Your task to perform on an android device: open app "Chime – Mobile Banking" (install if not already installed) Image 0: 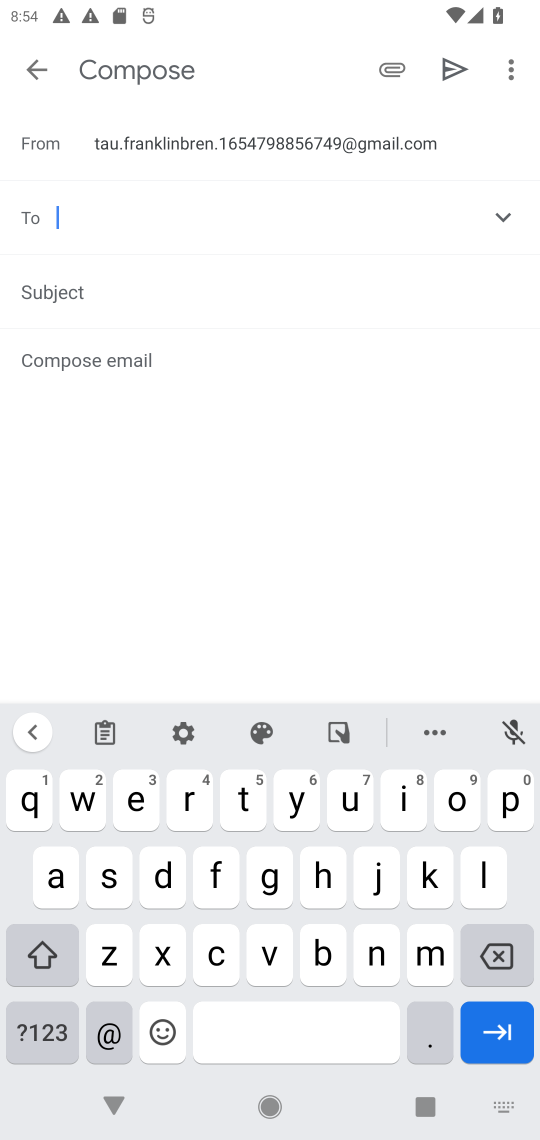
Step 0: press home button
Your task to perform on an android device: open app "Chime – Mobile Banking" (install if not already installed) Image 1: 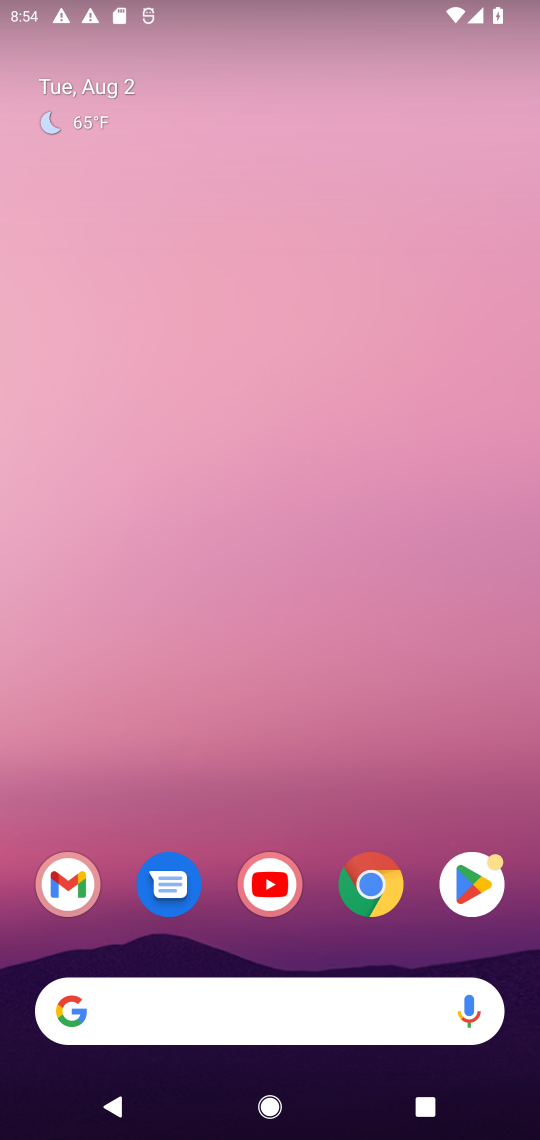
Step 1: click (465, 892)
Your task to perform on an android device: open app "Chime – Mobile Banking" (install if not already installed) Image 2: 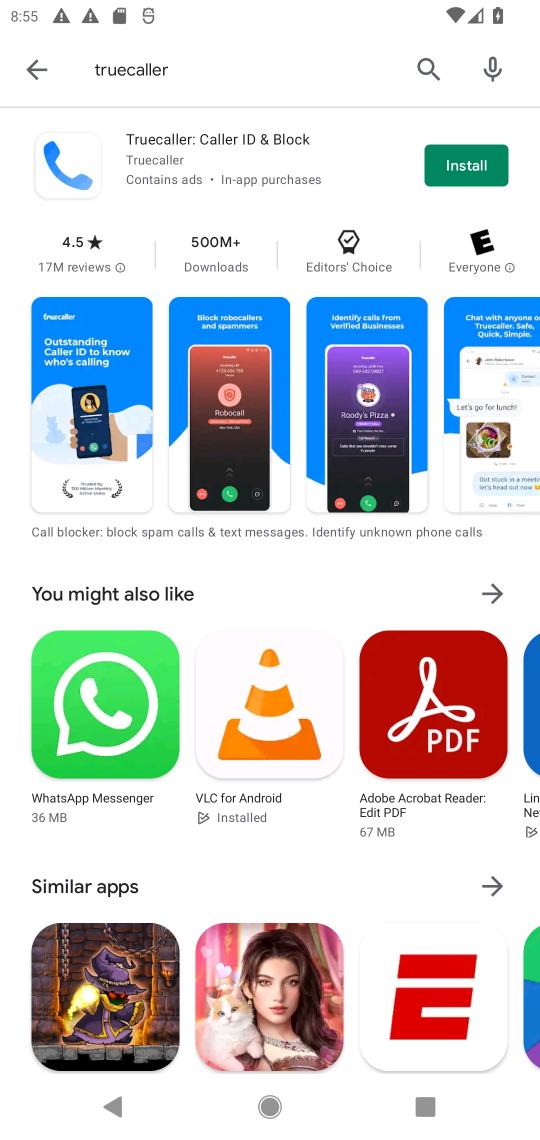
Step 2: click (416, 66)
Your task to perform on an android device: open app "Chime – Mobile Banking" (install if not already installed) Image 3: 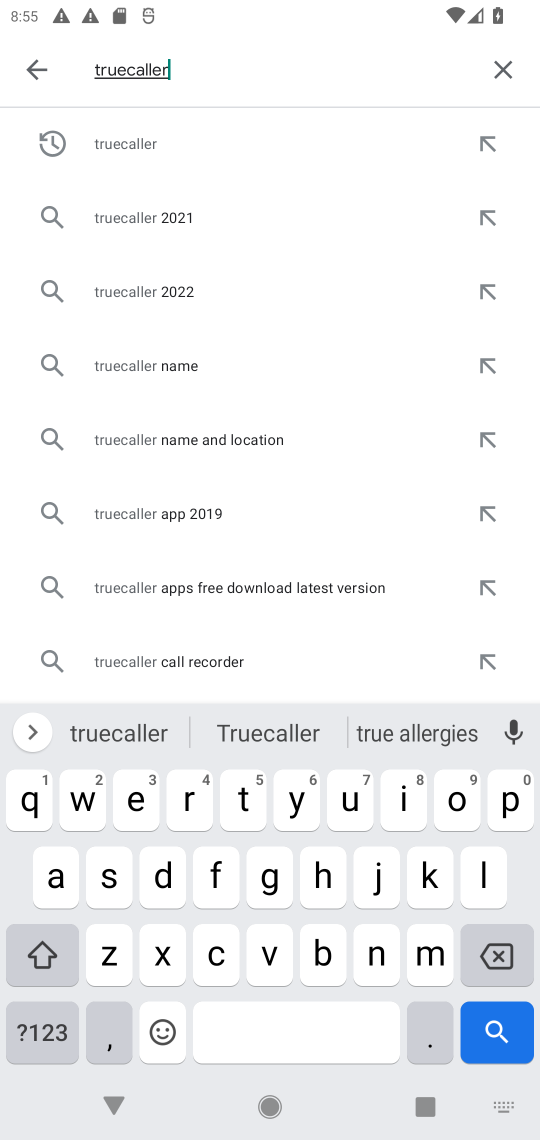
Step 3: click (501, 69)
Your task to perform on an android device: open app "Chime – Mobile Banking" (install if not already installed) Image 4: 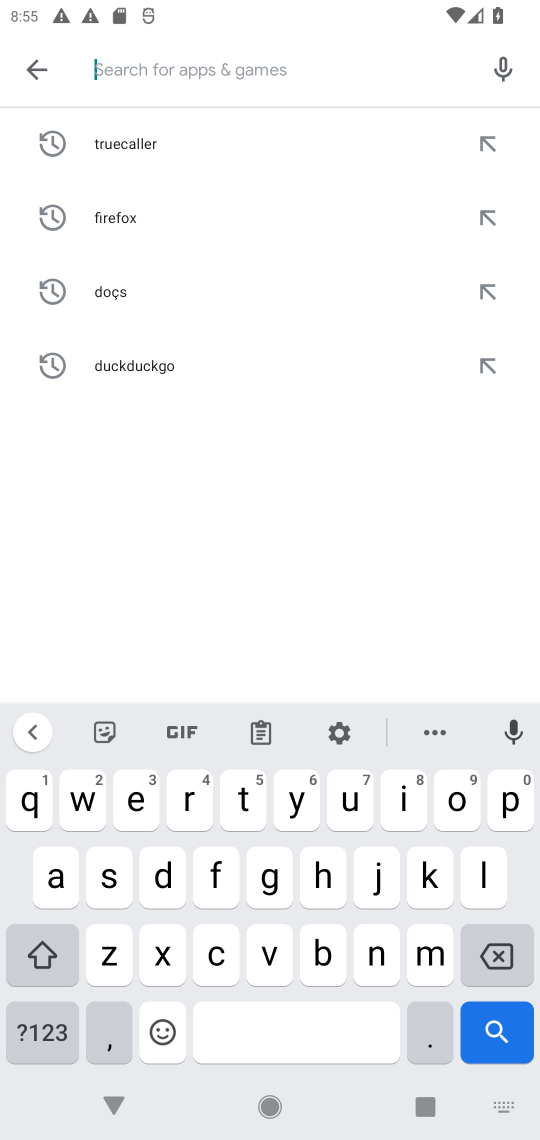
Step 4: click (211, 955)
Your task to perform on an android device: open app "Chime – Mobile Banking" (install if not already installed) Image 5: 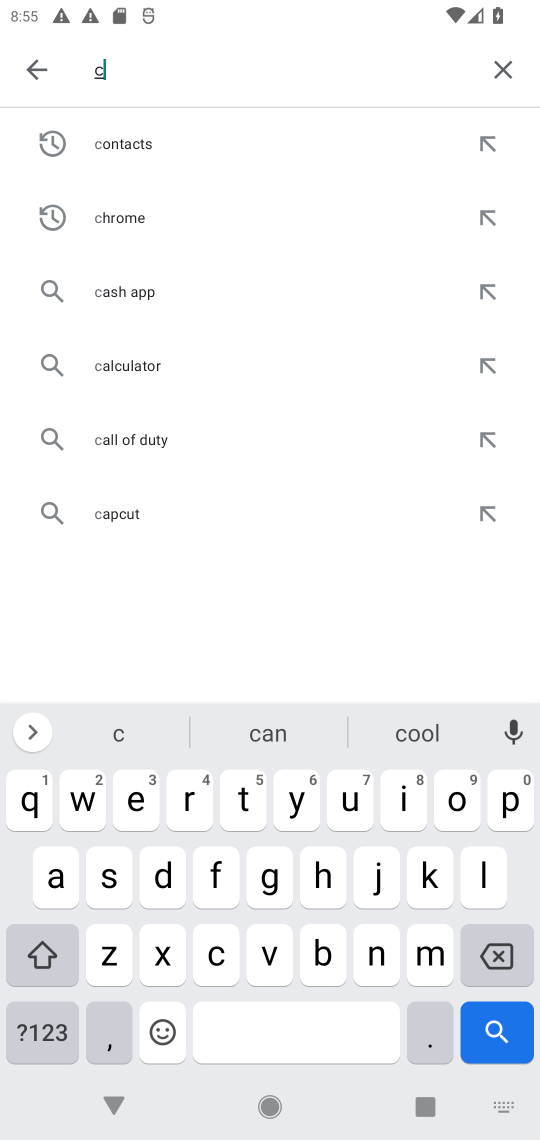
Step 5: click (323, 877)
Your task to perform on an android device: open app "Chime – Mobile Banking" (install if not already installed) Image 6: 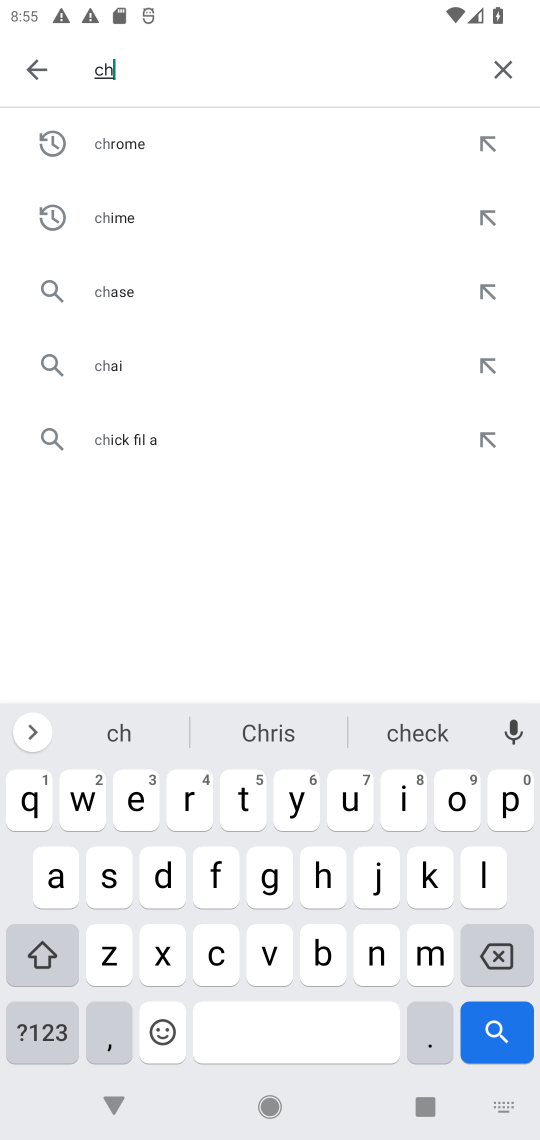
Step 6: click (406, 801)
Your task to perform on an android device: open app "Chime – Mobile Banking" (install if not already installed) Image 7: 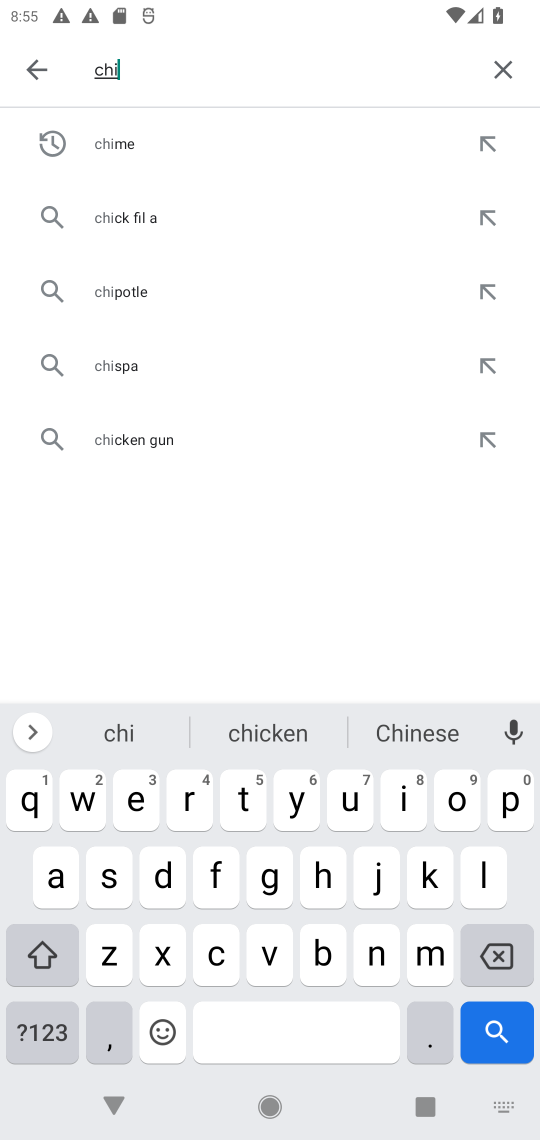
Step 7: click (152, 136)
Your task to perform on an android device: open app "Chime – Mobile Banking" (install if not already installed) Image 8: 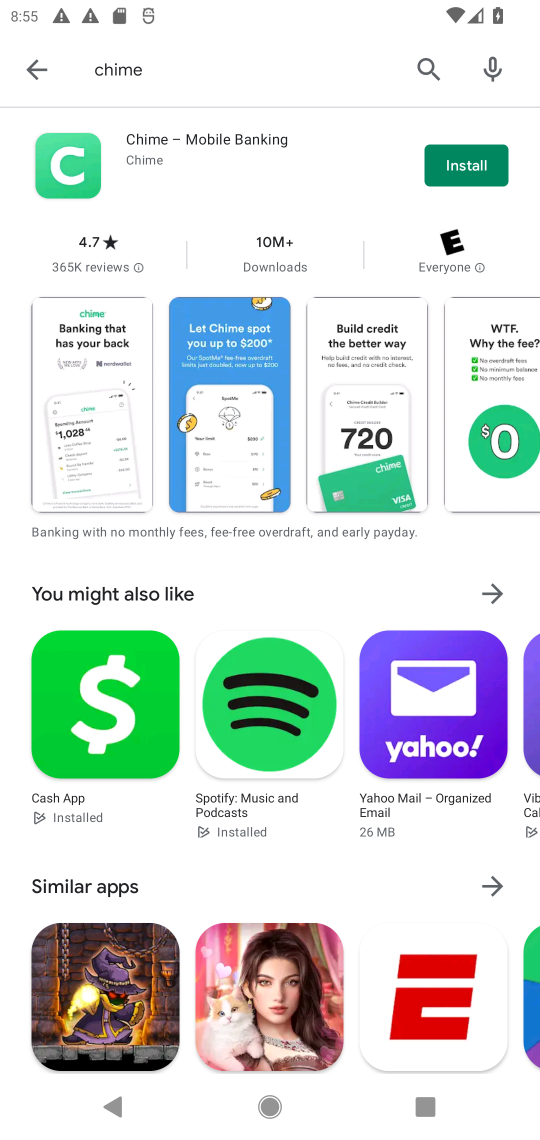
Step 8: click (469, 170)
Your task to perform on an android device: open app "Chime – Mobile Banking" (install if not already installed) Image 9: 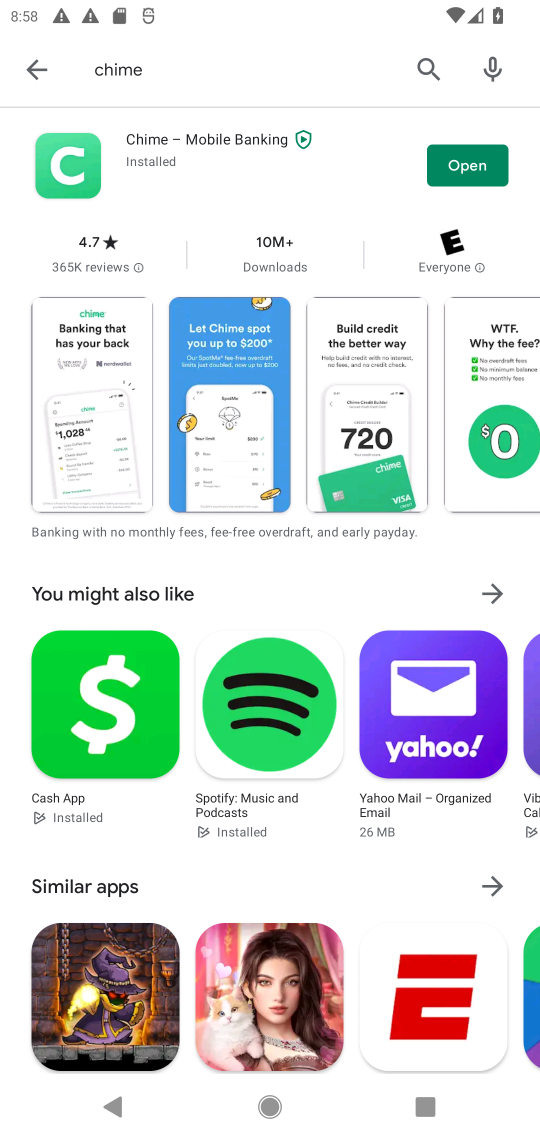
Step 9: click (432, 166)
Your task to perform on an android device: open app "Chime – Mobile Banking" (install if not already installed) Image 10: 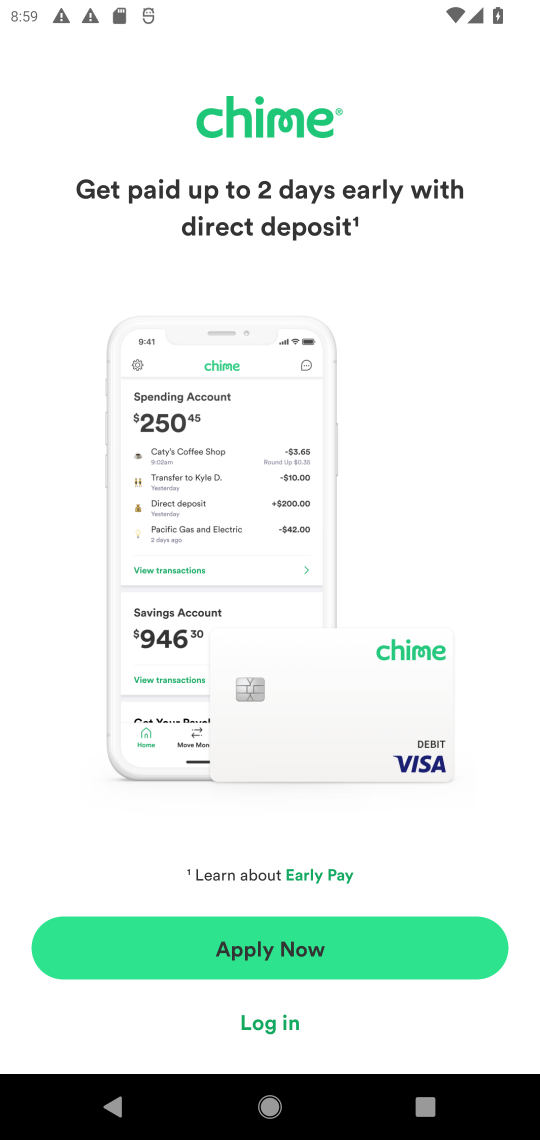
Step 10: task complete